Your task to perform on an android device: choose inbox layout in the gmail app Image 0: 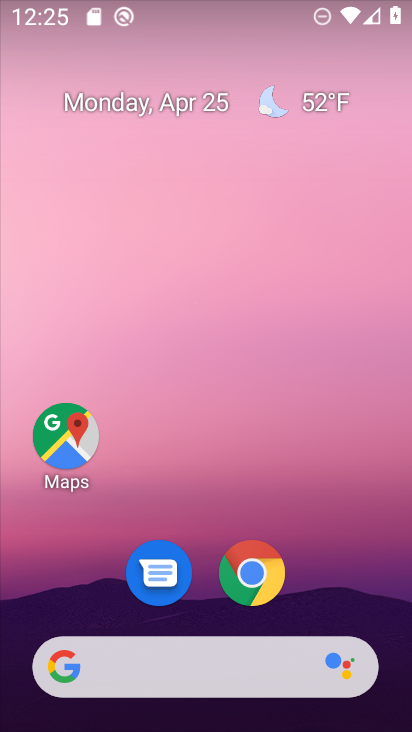
Step 0: drag from (231, 720) to (224, 152)
Your task to perform on an android device: choose inbox layout in the gmail app Image 1: 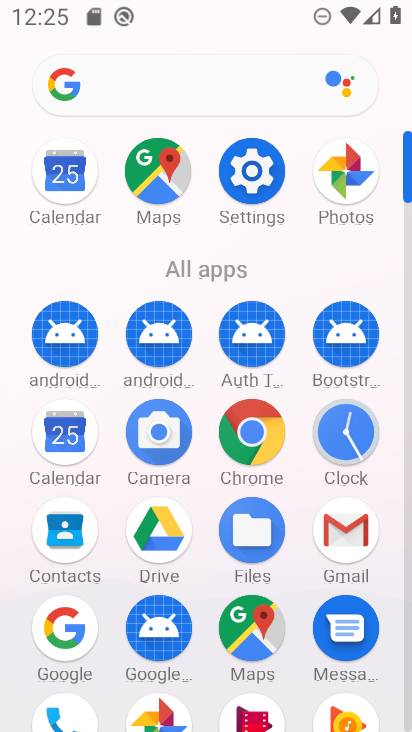
Step 1: click (340, 517)
Your task to perform on an android device: choose inbox layout in the gmail app Image 2: 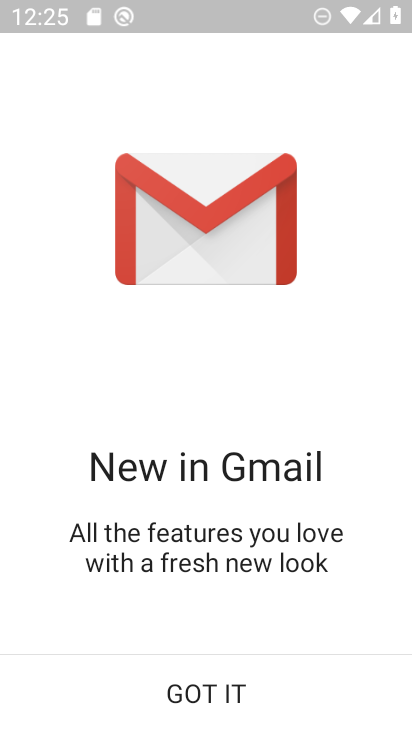
Step 2: click (205, 692)
Your task to perform on an android device: choose inbox layout in the gmail app Image 3: 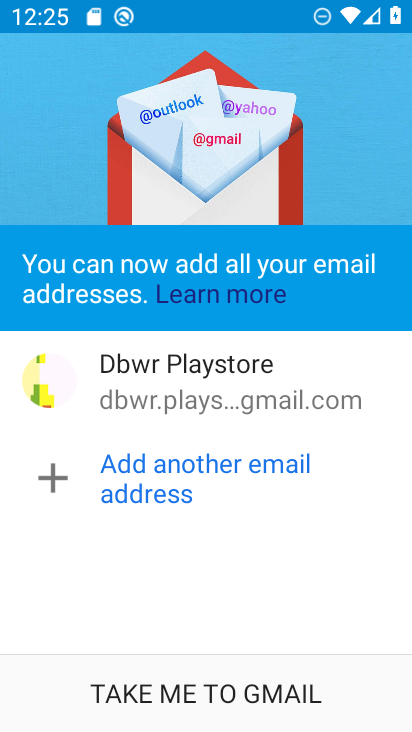
Step 3: click (234, 687)
Your task to perform on an android device: choose inbox layout in the gmail app Image 4: 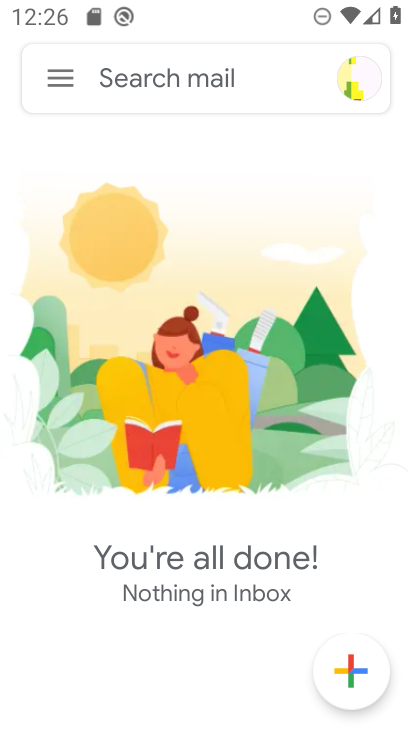
Step 4: click (60, 70)
Your task to perform on an android device: choose inbox layout in the gmail app Image 5: 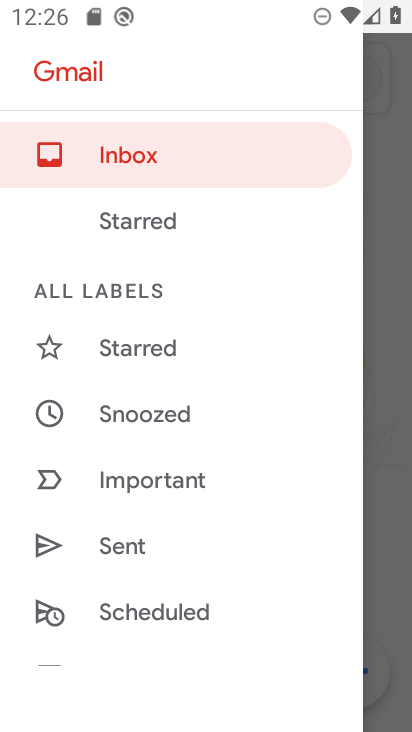
Step 5: drag from (132, 636) to (167, 180)
Your task to perform on an android device: choose inbox layout in the gmail app Image 6: 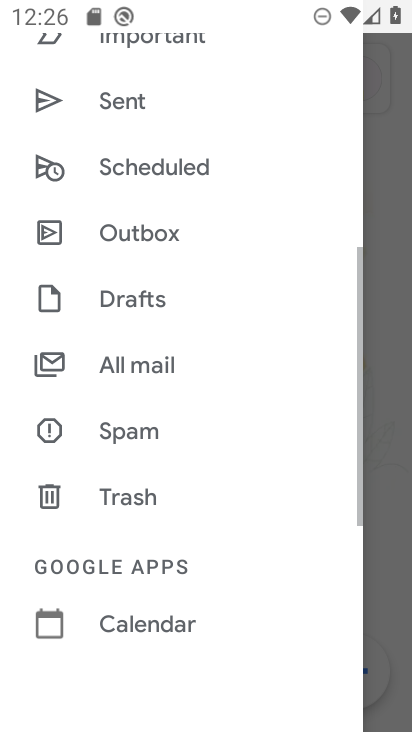
Step 6: drag from (137, 637) to (138, 248)
Your task to perform on an android device: choose inbox layout in the gmail app Image 7: 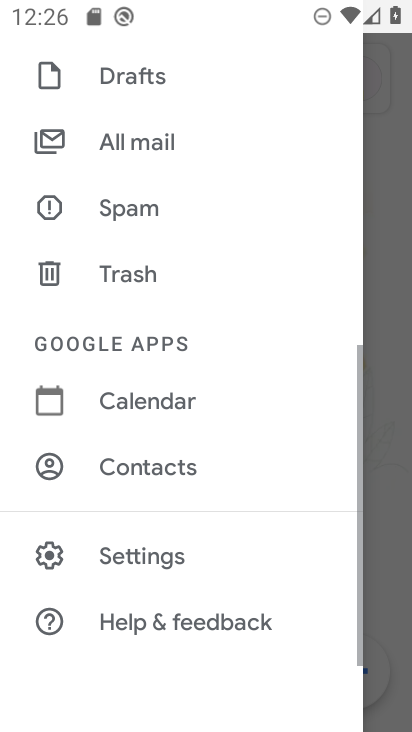
Step 7: click (136, 539)
Your task to perform on an android device: choose inbox layout in the gmail app Image 8: 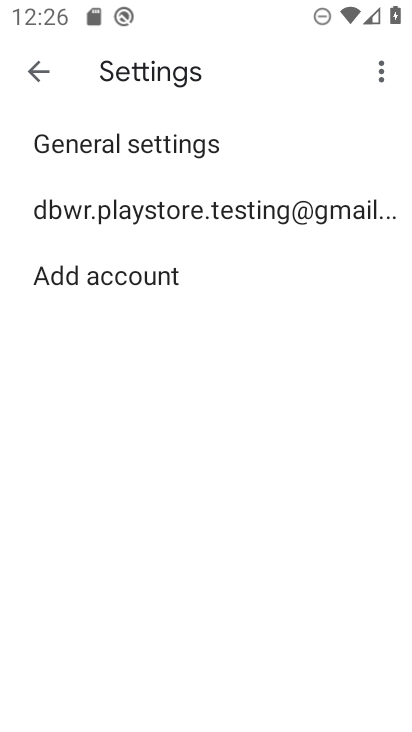
Step 8: click (216, 213)
Your task to perform on an android device: choose inbox layout in the gmail app Image 9: 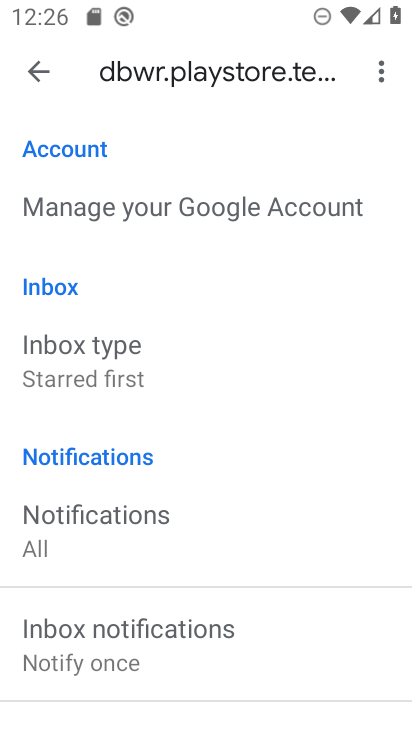
Step 9: click (102, 350)
Your task to perform on an android device: choose inbox layout in the gmail app Image 10: 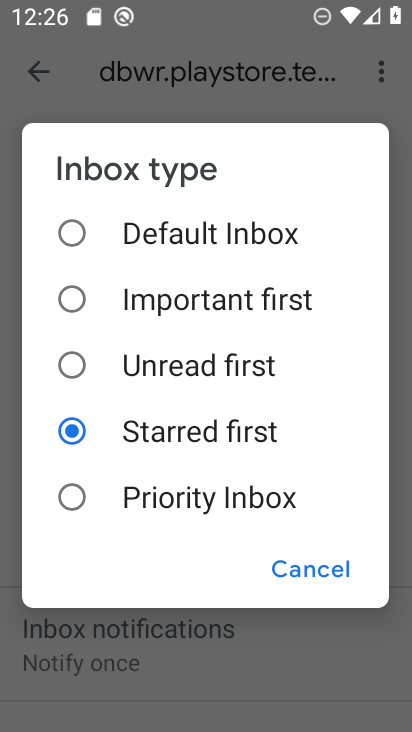
Step 10: click (63, 224)
Your task to perform on an android device: choose inbox layout in the gmail app Image 11: 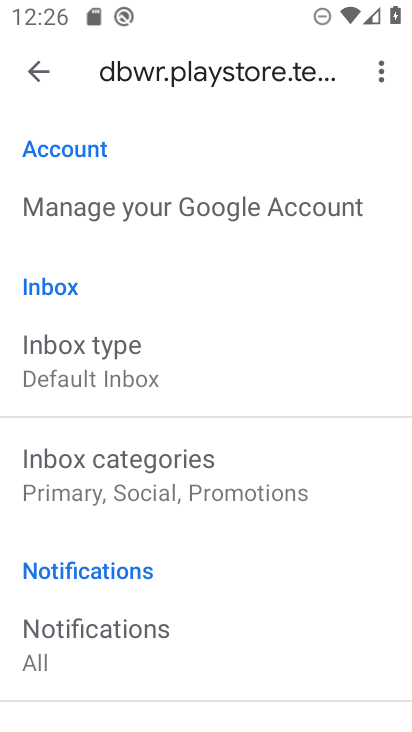
Step 11: task complete